Your task to perform on an android device: turn off notifications settings in the gmail app Image 0: 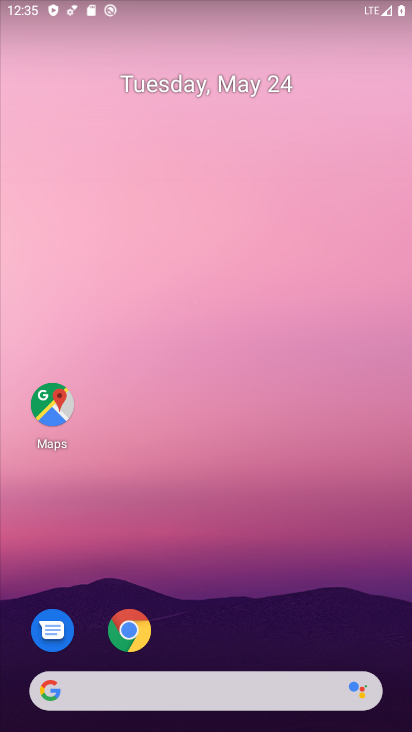
Step 0: drag from (264, 636) to (307, 261)
Your task to perform on an android device: turn off notifications settings in the gmail app Image 1: 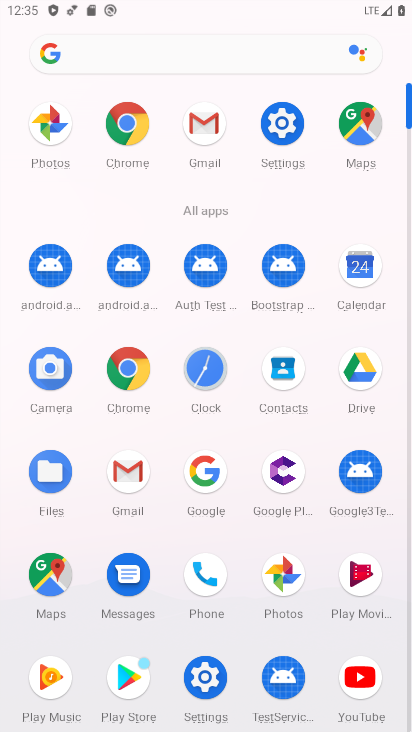
Step 1: click (132, 475)
Your task to perform on an android device: turn off notifications settings in the gmail app Image 2: 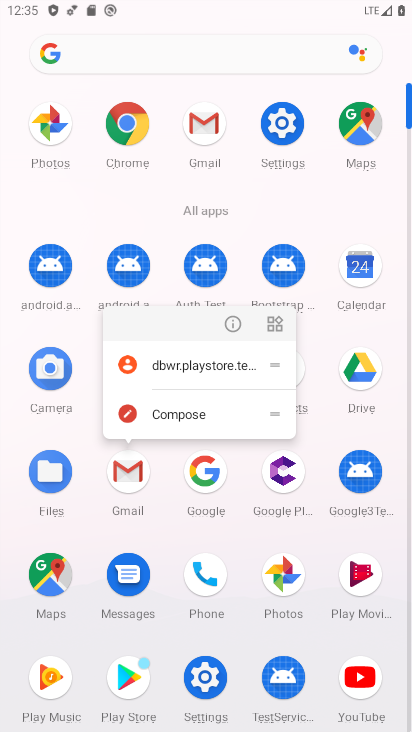
Step 2: click (232, 323)
Your task to perform on an android device: turn off notifications settings in the gmail app Image 3: 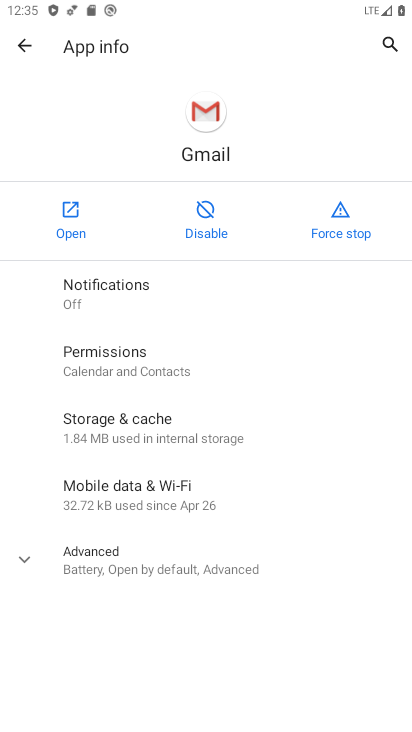
Step 3: click (176, 300)
Your task to perform on an android device: turn off notifications settings in the gmail app Image 4: 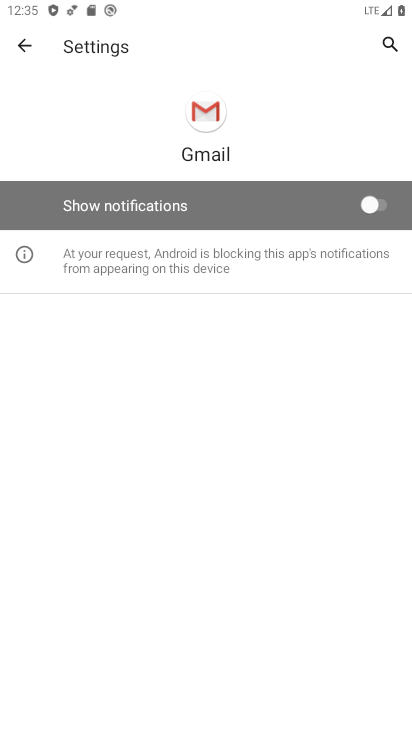
Step 4: task complete